Your task to perform on an android device: remove spam from my inbox in the gmail app Image 0: 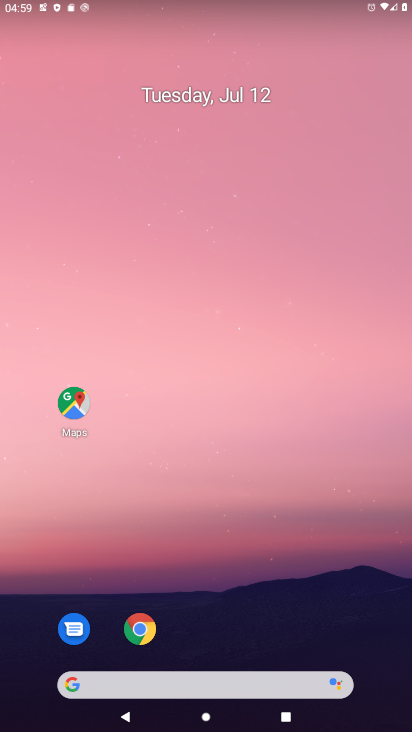
Step 0: press home button
Your task to perform on an android device: remove spam from my inbox in the gmail app Image 1: 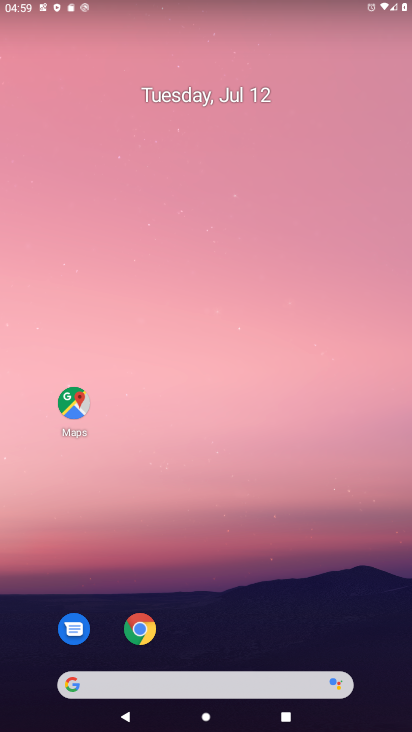
Step 1: drag from (236, 635) to (283, 0)
Your task to perform on an android device: remove spam from my inbox in the gmail app Image 2: 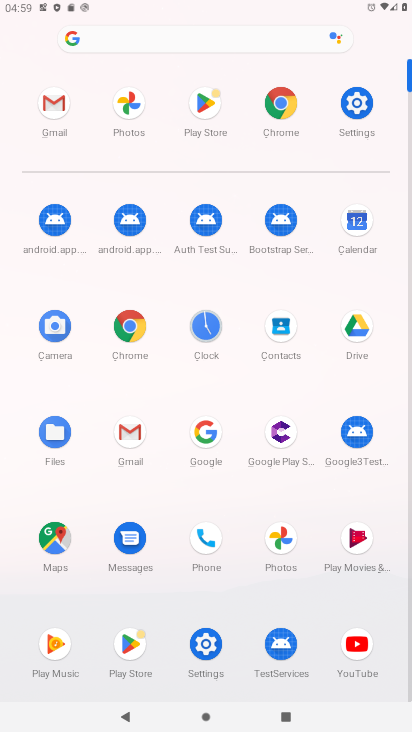
Step 2: click (49, 110)
Your task to perform on an android device: remove spam from my inbox in the gmail app Image 3: 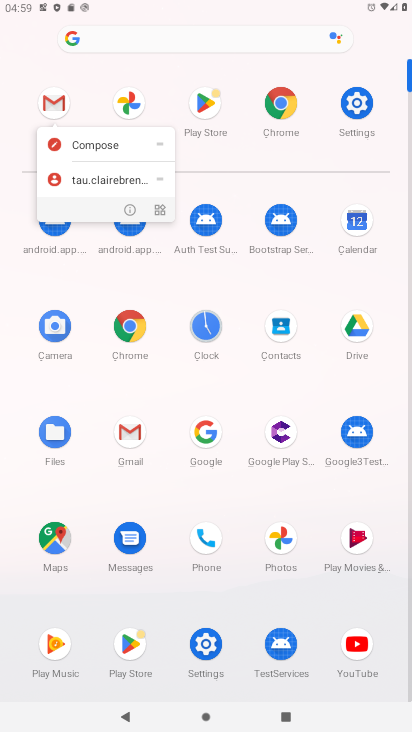
Step 3: click (49, 105)
Your task to perform on an android device: remove spam from my inbox in the gmail app Image 4: 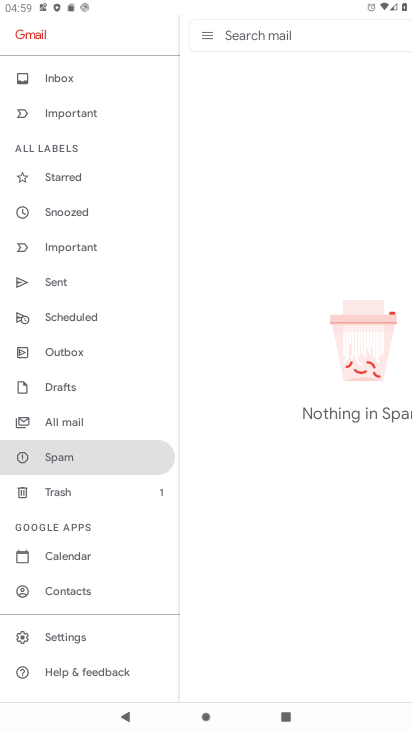
Step 4: click (65, 454)
Your task to perform on an android device: remove spam from my inbox in the gmail app Image 5: 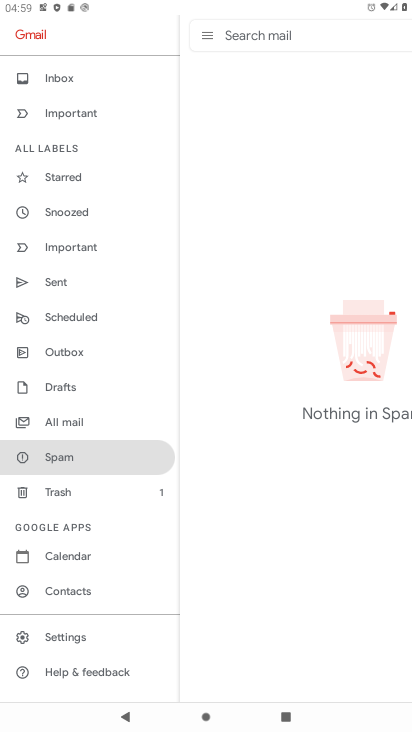
Step 5: task complete